Your task to perform on an android device: open app "Flipkart Online Shopping App" Image 0: 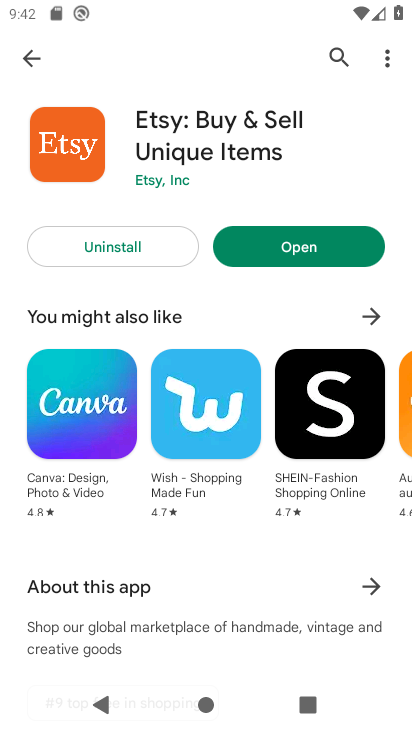
Step 0: press home button
Your task to perform on an android device: open app "Flipkart Online Shopping App" Image 1: 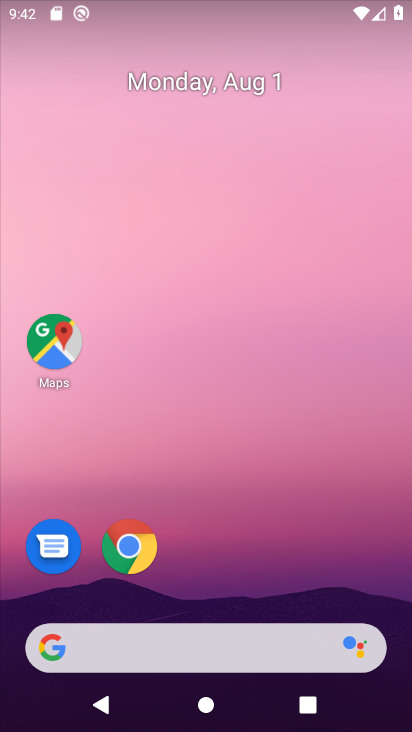
Step 1: drag from (219, 608) to (215, 34)
Your task to perform on an android device: open app "Flipkart Online Shopping App" Image 2: 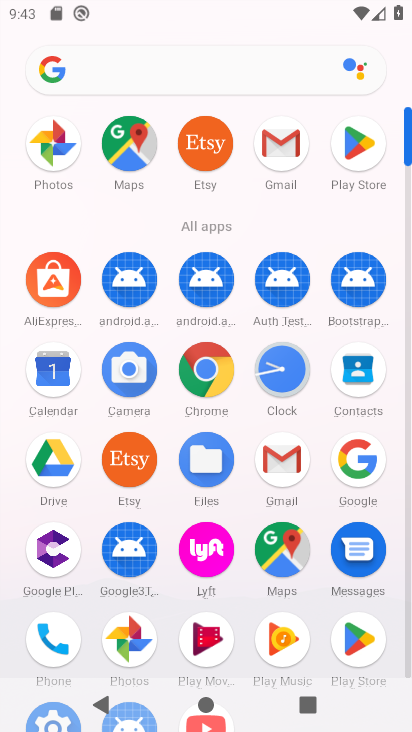
Step 2: click (357, 136)
Your task to perform on an android device: open app "Flipkart Online Shopping App" Image 3: 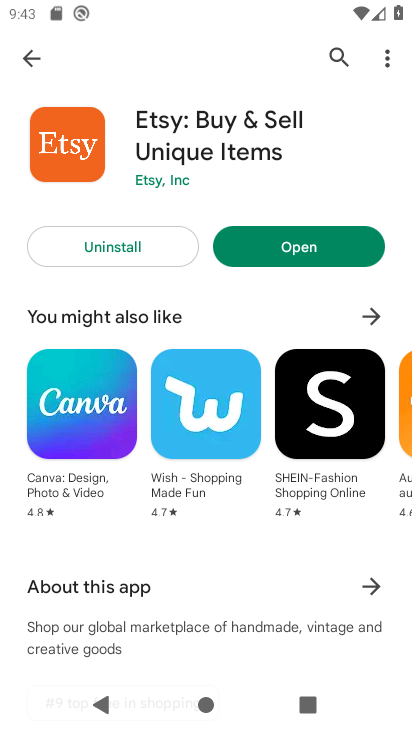
Step 3: click (324, 60)
Your task to perform on an android device: open app "Flipkart Online Shopping App" Image 4: 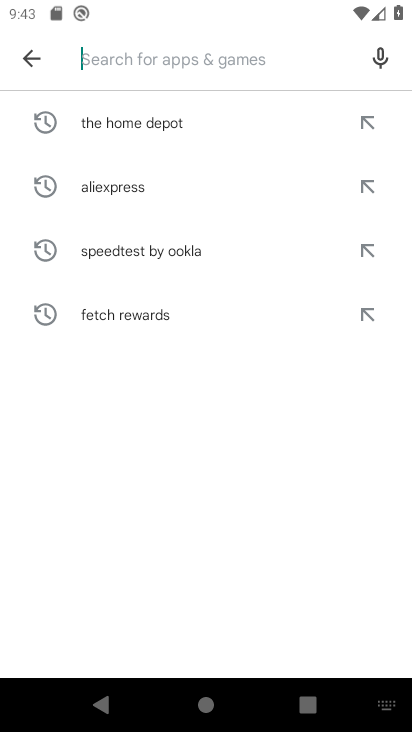
Step 4: type "Flipkart Online Shopping App"
Your task to perform on an android device: open app "Flipkart Online Shopping App" Image 5: 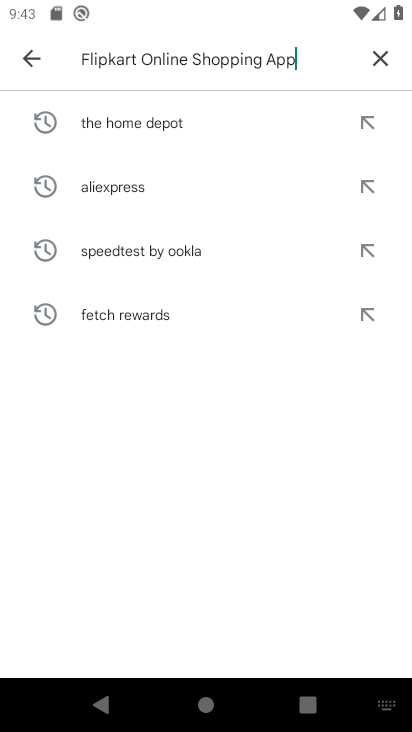
Step 5: type ""
Your task to perform on an android device: open app "Flipkart Online Shopping App" Image 6: 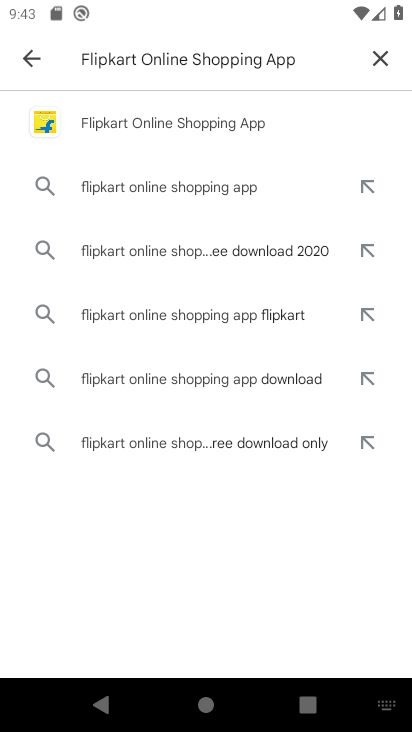
Step 6: click (191, 124)
Your task to perform on an android device: open app "Flipkart Online Shopping App" Image 7: 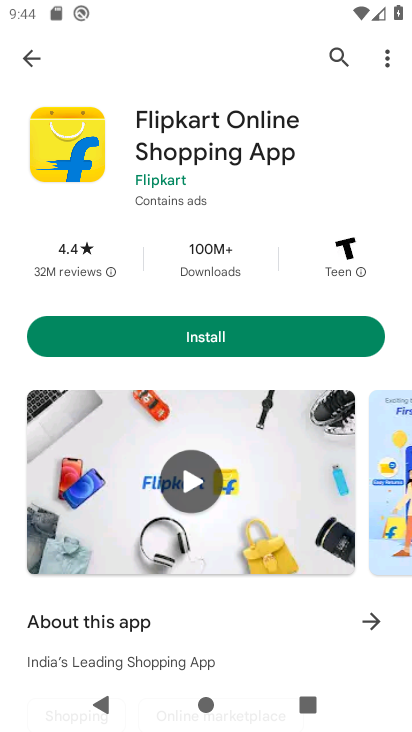
Step 7: task complete